Your task to perform on an android device: toggle javascript in the chrome app Image 0: 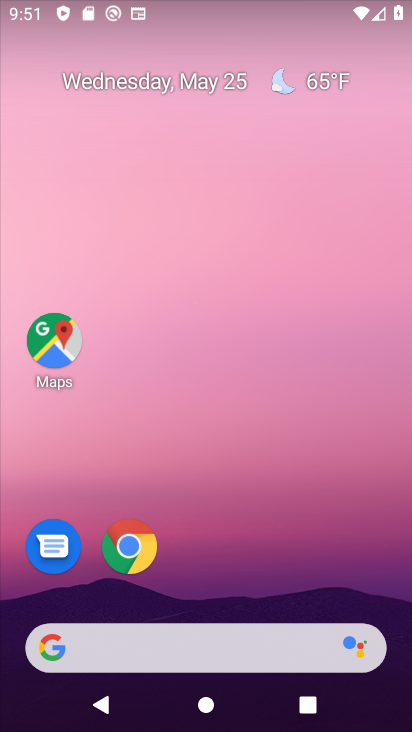
Step 0: drag from (252, 555) to (200, 80)
Your task to perform on an android device: toggle javascript in the chrome app Image 1: 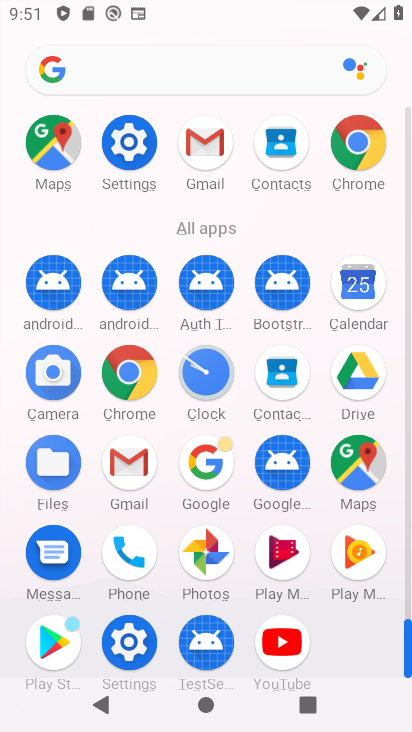
Step 1: drag from (2, 592) to (11, 235)
Your task to perform on an android device: toggle javascript in the chrome app Image 2: 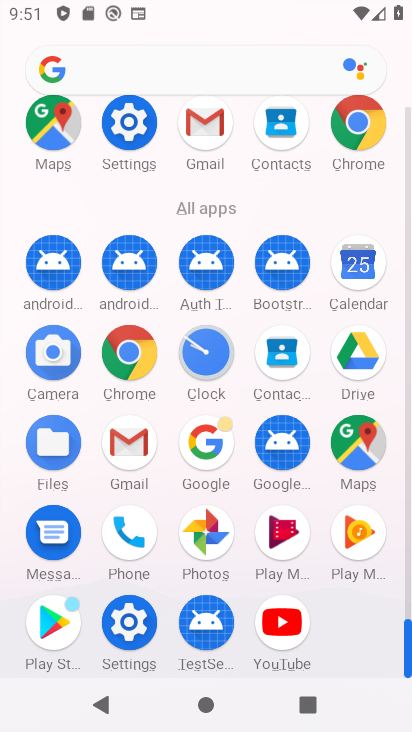
Step 2: click (127, 348)
Your task to perform on an android device: toggle javascript in the chrome app Image 3: 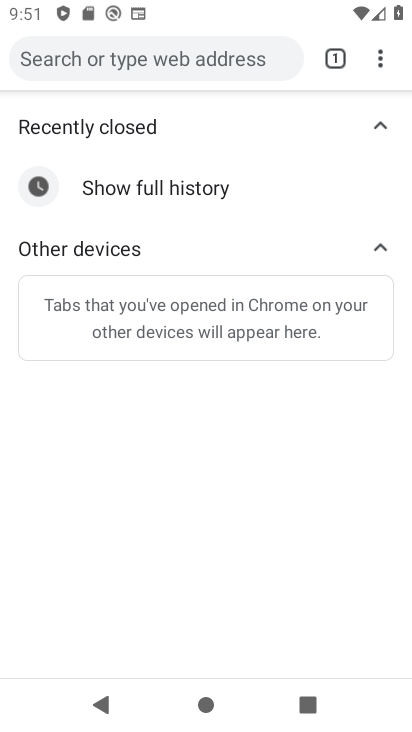
Step 3: drag from (381, 52) to (215, 476)
Your task to perform on an android device: toggle javascript in the chrome app Image 4: 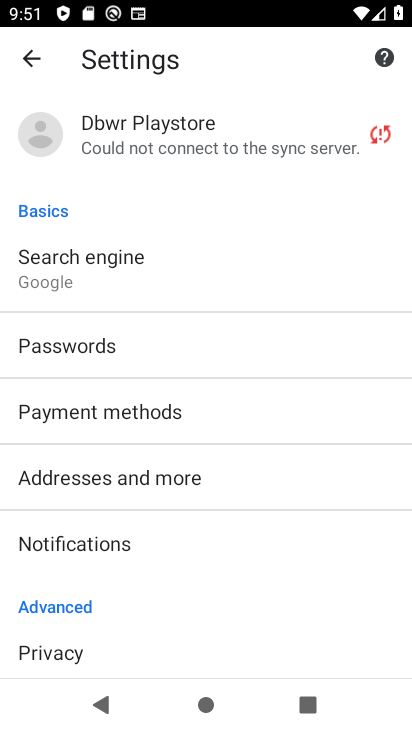
Step 4: drag from (186, 589) to (199, 181)
Your task to perform on an android device: toggle javascript in the chrome app Image 5: 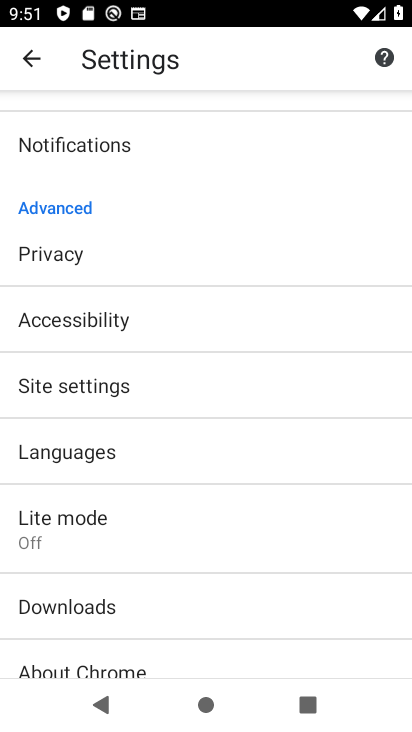
Step 5: click (115, 392)
Your task to perform on an android device: toggle javascript in the chrome app Image 6: 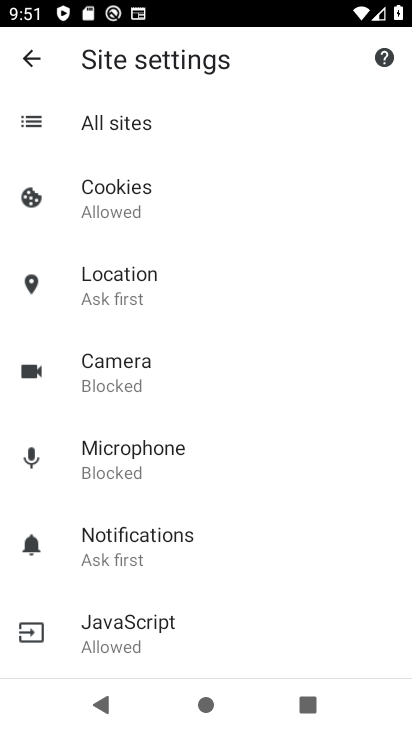
Step 6: click (164, 628)
Your task to perform on an android device: toggle javascript in the chrome app Image 7: 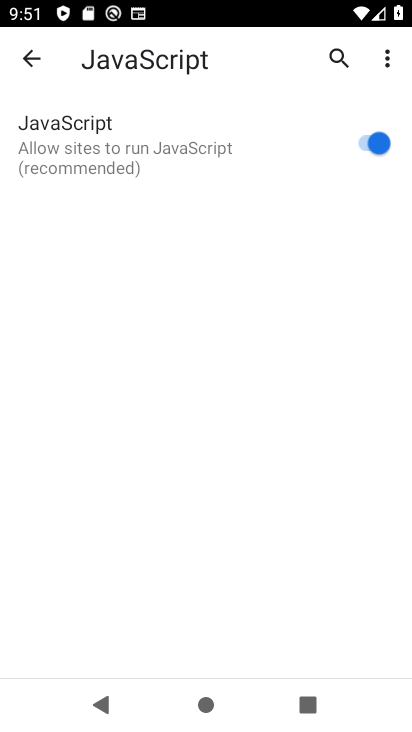
Step 7: click (372, 129)
Your task to perform on an android device: toggle javascript in the chrome app Image 8: 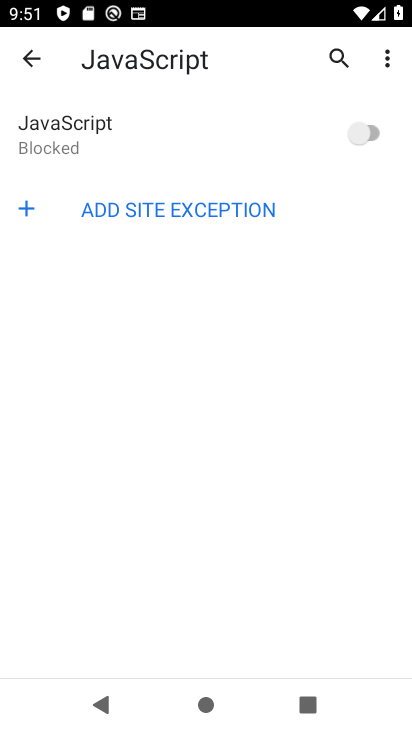
Step 8: task complete